Your task to perform on an android device: empty trash in the gmail app Image 0: 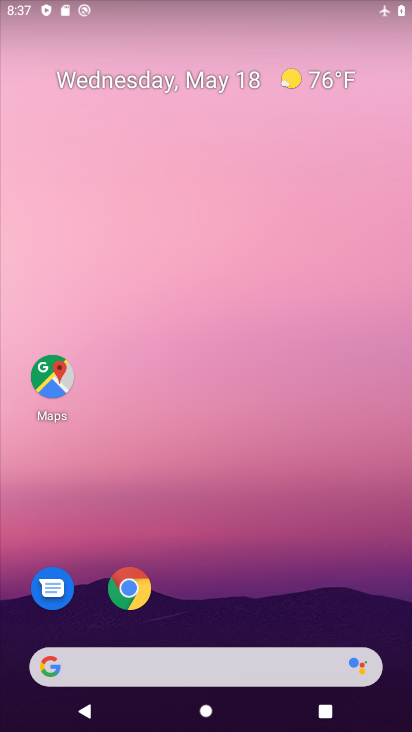
Step 0: drag from (247, 606) to (282, 126)
Your task to perform on an android device: empty trash in the gmail app Image 1: 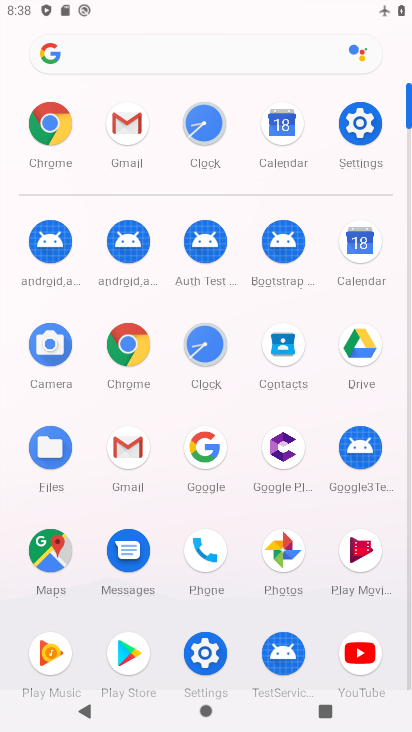
Step 1: click (132, 125)
Your task to perform on an android device: empty trash in the gmail app Image 2: 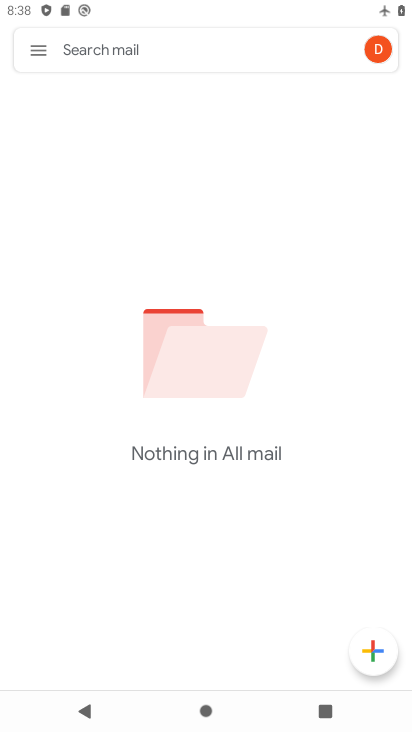
Step 2: click (49, 45)
Your task to perform on an android device: empty trash in the gmail app Image 3: 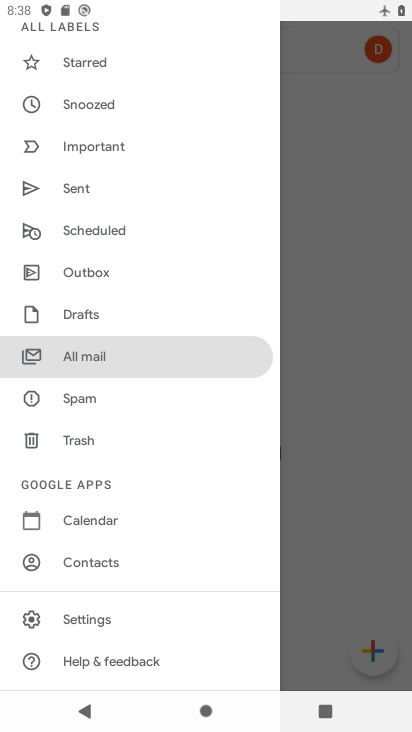
Step 3: click (97, 618)
Your task to perform on an android device: empty trash in the gmail app Image 4: 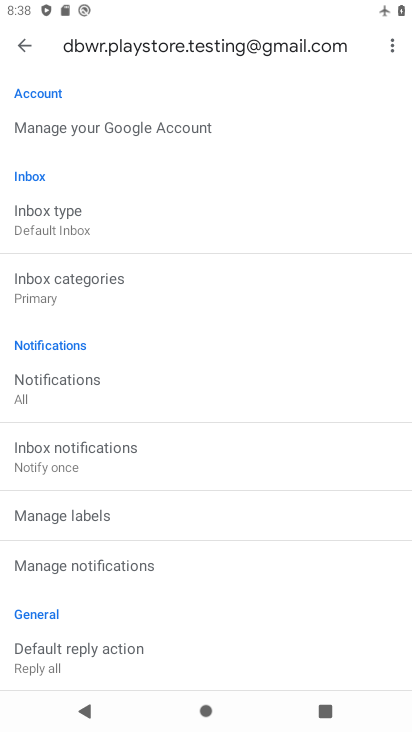
Step 4: click (19, 50)
Your task to perform on an android device: empty trash in the gmail app Image 5: 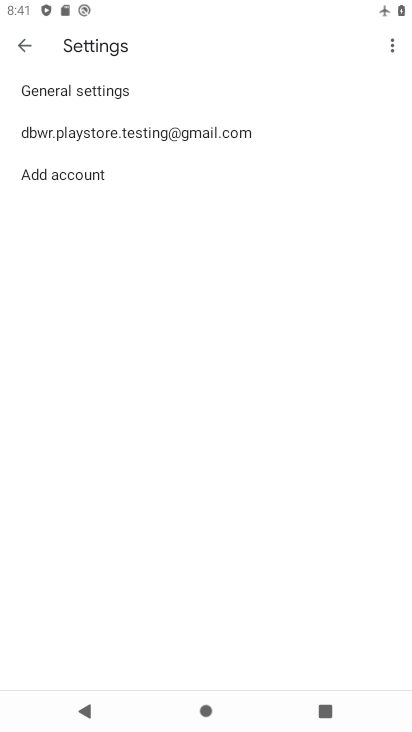
Step 5: press home button
Your task to perform on an android device: empty trash in the gmail app Image 6: 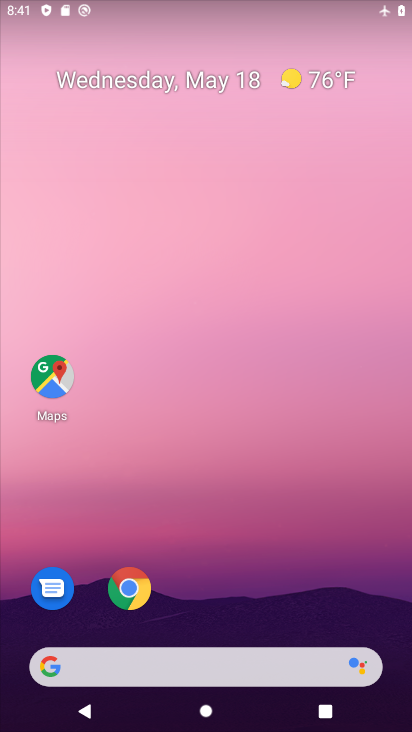
Step 6: drag from (248, 612) to (244, 174)
Your task to perform on an android device: empty trash in the gmail app Image 7: 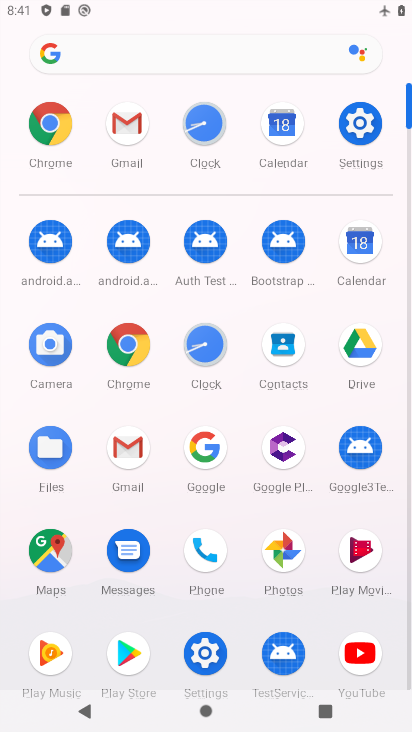
Step 7: click (129, 151)
Your task to perform on an android device: empty trash in the gmail app Image 8: 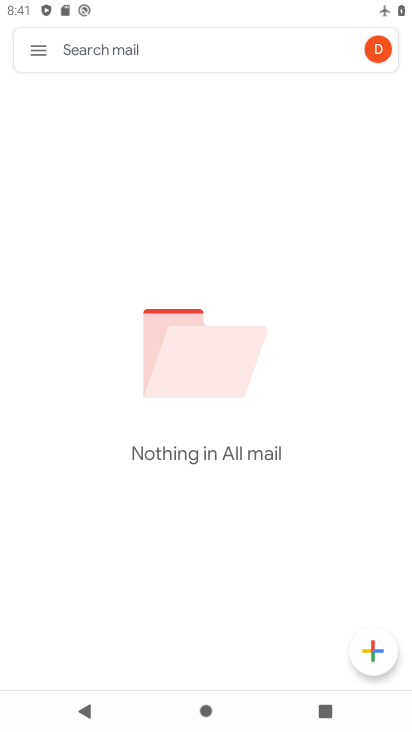
Step 8: click (46, 57)
Your task to perform on an android device: empty trash in the gmail app Image 9: 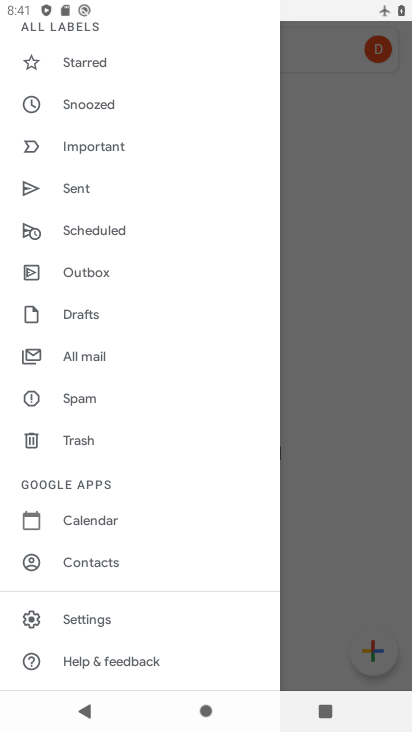
Step 9: click (69, 432)
Your task to perform on an android device: empty trash in the gmail app Image 10: 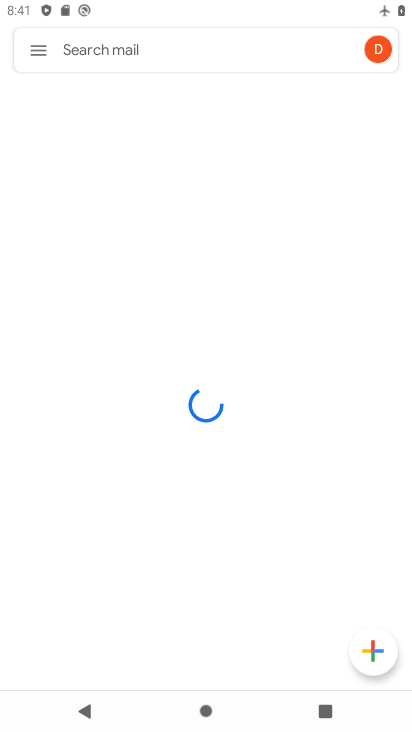
Step 10: task complete